Your task to perform on an android device: Go to battery settings Image 0: 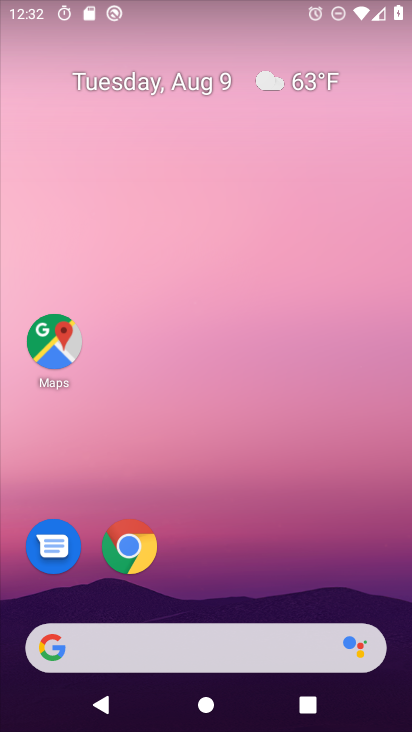
Step 0: press home button
Your task to perform on an android device: Go to battery settings Image 1: 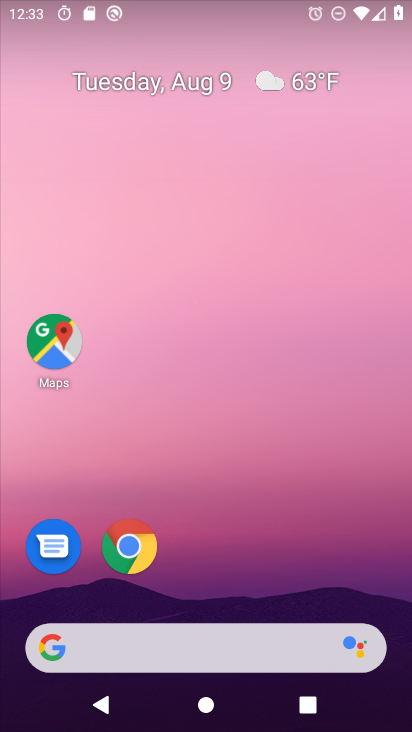
Step 1: drag from (223, 591) to (241, 57)
Your task to perform on an android device: Go to battery settings Image 2: 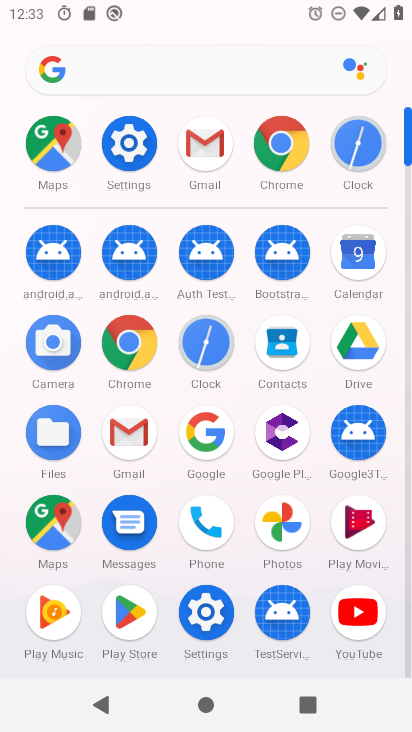
Step 2: click (125, 133)
Your task to perform on an android device: Go to battery settings Image 3: 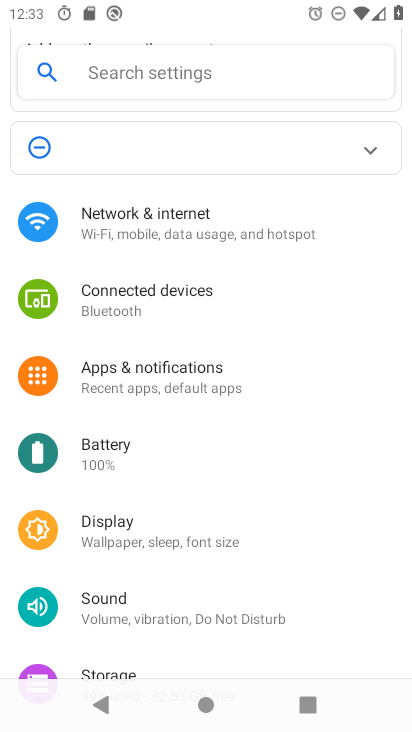
Step 3: click (142, 446)
Your task to perform on an android device: Go to battery settings Image 4: 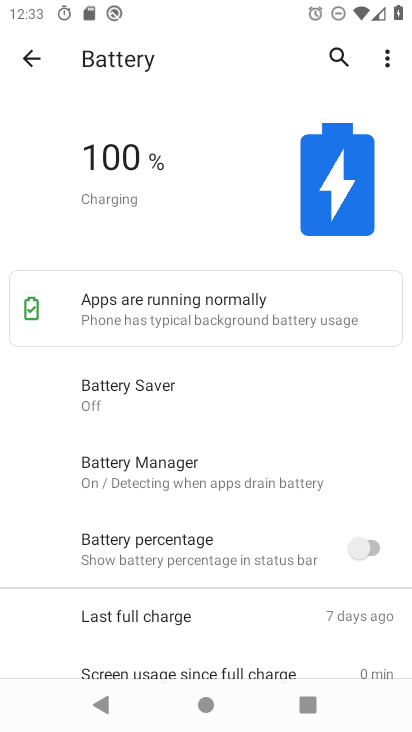
Step 4: task complete